Your task to perform on an android device: Go to location settings Image 0: 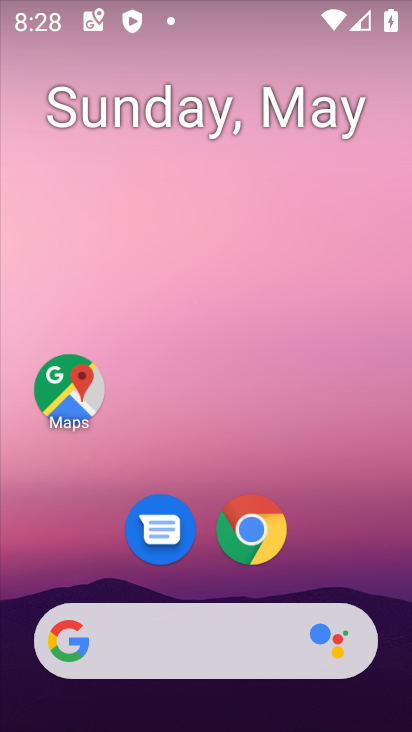
Step 0: drag from (368, 584) to (411, 9)
Your task to perform on an android device: Go to location settings Image 1: 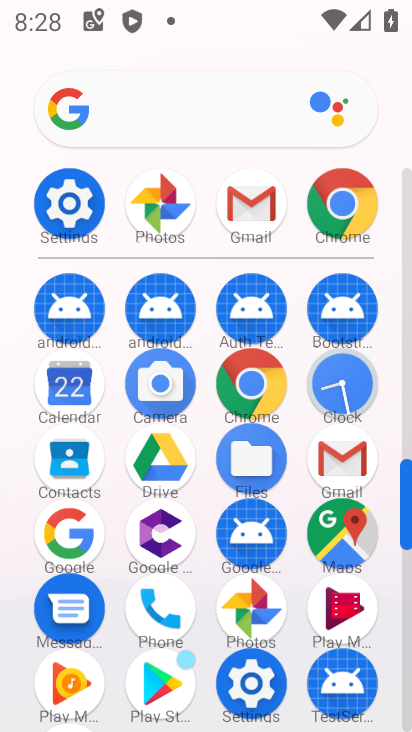
Step 1: click (69, 204)
Your task to perform on an android device: Go to location settings Image 2: 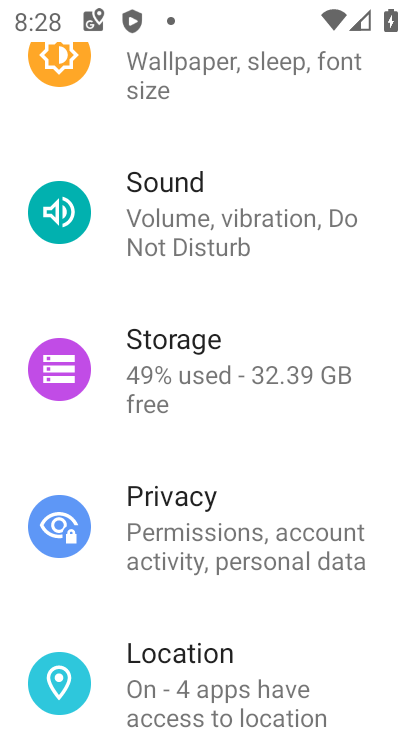
Step 2: click (192, 671)
Your task to perform on an android device: Go to location settings Image 3: 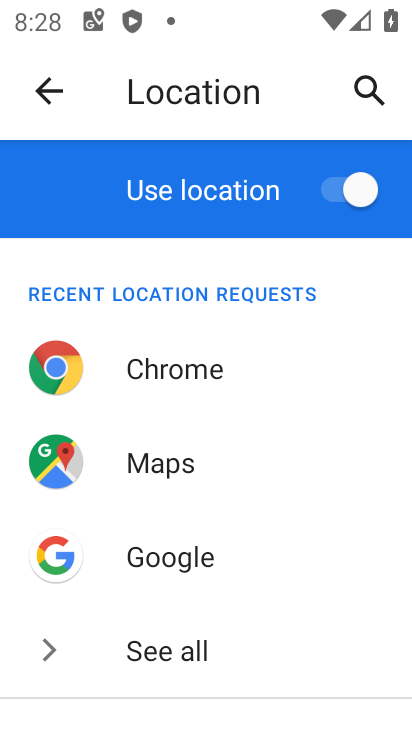
Step 3: task complete